Your task to perform on an android device: turn on bluetooth scan Image 0: 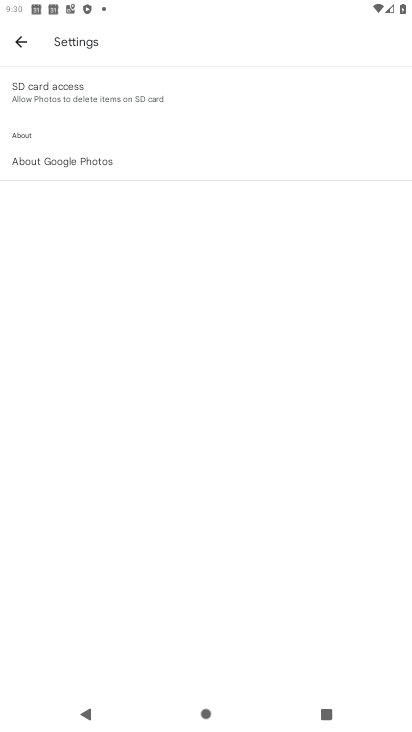
Step 0: press home button
Your task to perform on an android device: turn on bluetooth scan Image 1: 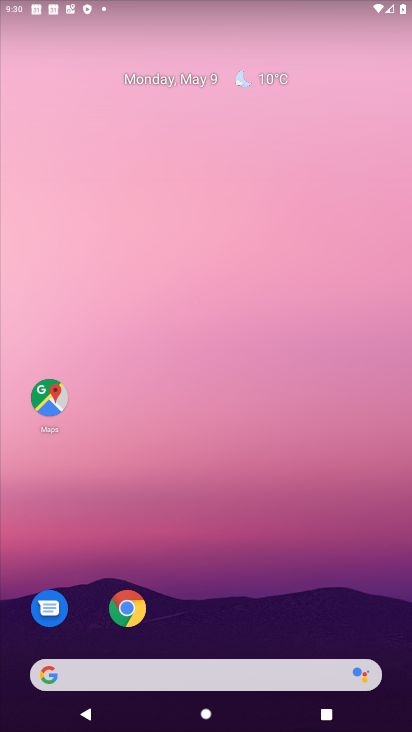
Step 1: drag from (259, 525) to (248, 40)
Your task to perform on an android device: turn on bluetooth scan Image 2: 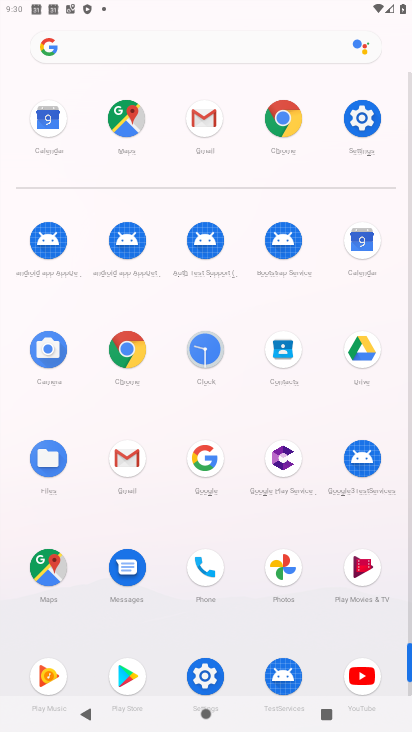
Step 2: click (350, 125)
Your task to perform on an android device: turn on bluetooth scan Image 3: 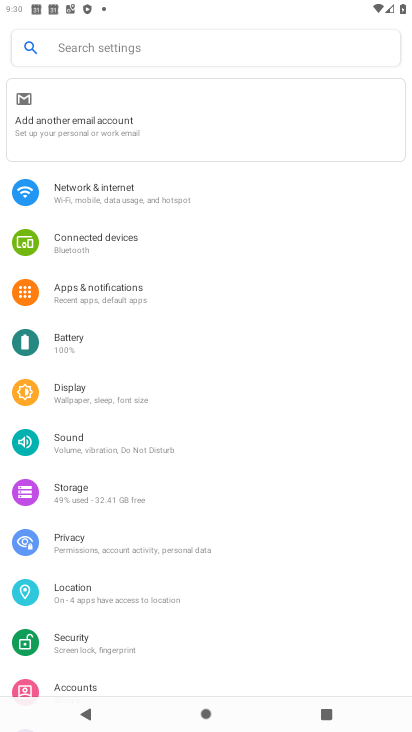
Step 3: click (81, 576)
Your task to perform on an android device: turn on bluetooth scan Image 4: 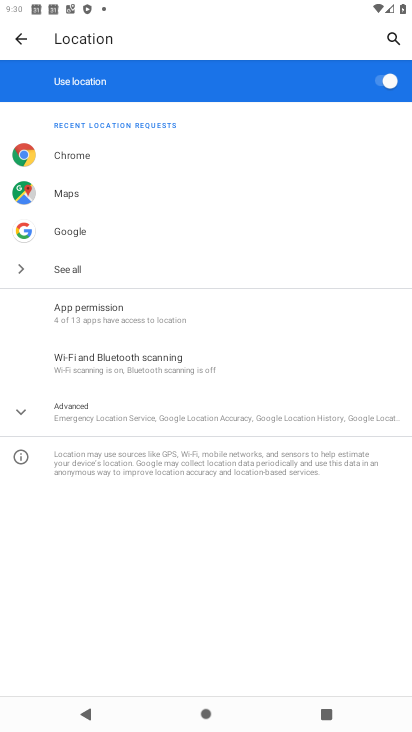
Step 4: click (81, 374)
Your task to perform on an android device: turn on bluetooth scan Image 5: 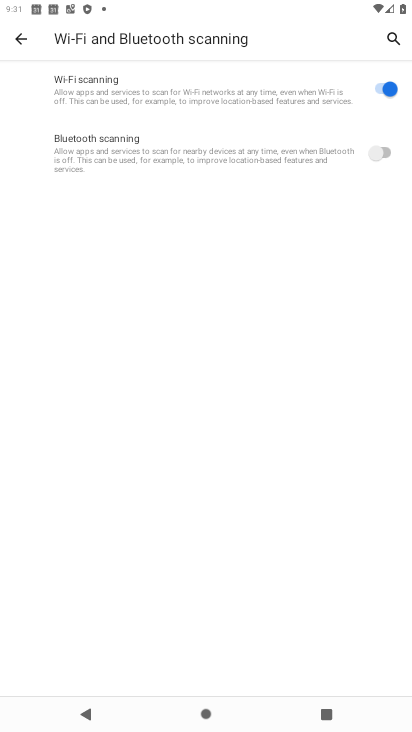
Step 5: click (386, 154)
Your task to perform on an android device: turn on bluetooth scan Image 6: 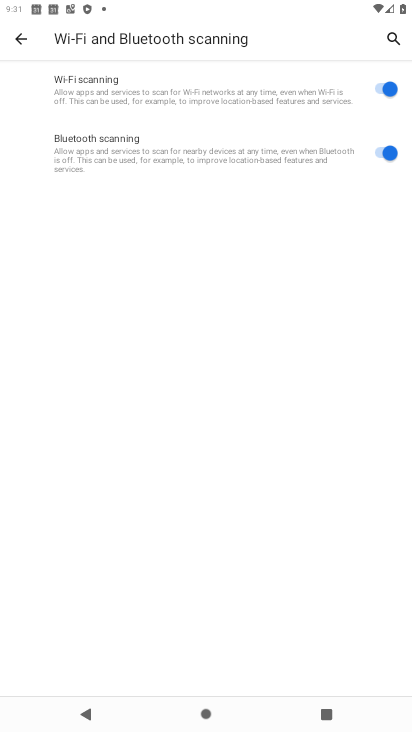
Step 6: task complete